Your task to perform on an android device: find photos in the google photos app Image 0: 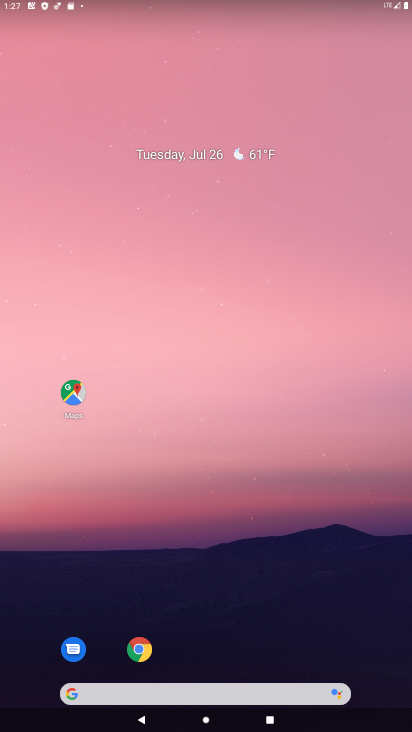
Step 0: drag from (187, 627) to (270, 0)
Your task to perform on an android device: find photos in the google photos app Image 1: 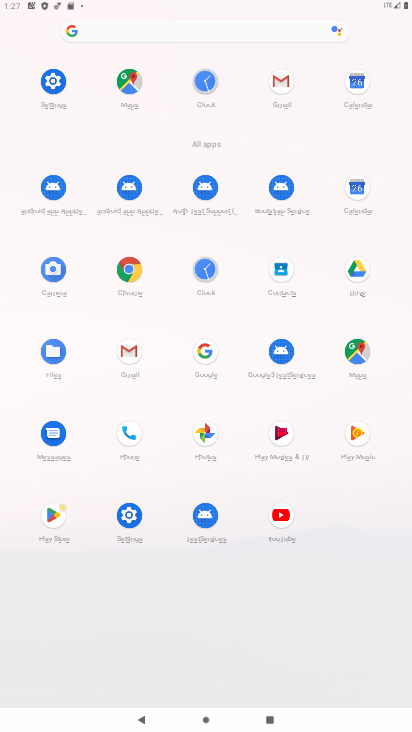
Step 1: click (196, 439)
Your task to perform on an android device: find photos in the google photos app Image 2: 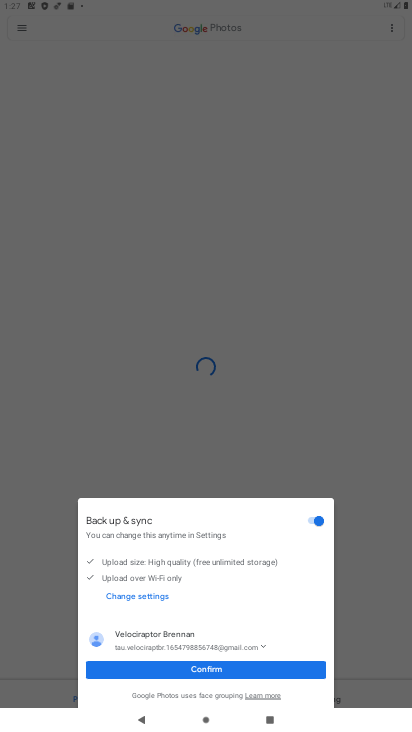
Step 2: click (200, 666)
Your task to perform on an android device: find photos in the google photos app Image 3: 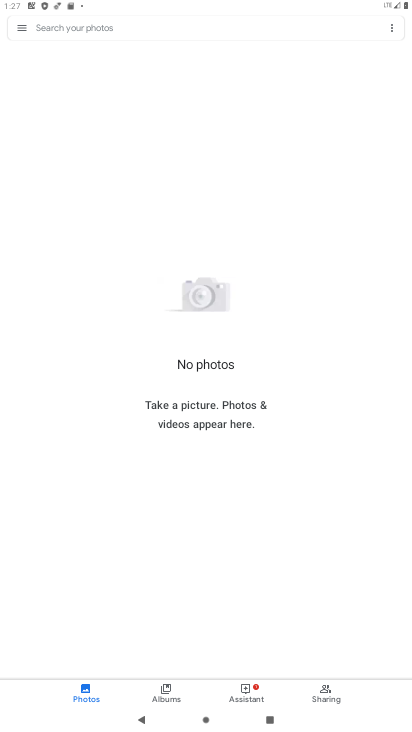
Step 3: task complete